Your task to perform on an android device: turn off location history Image 0: 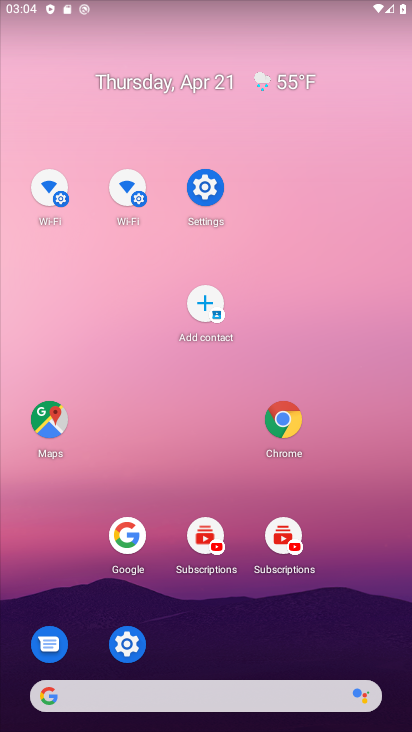
Step 0: drag from (229, 637) to (103, 24)
Your task to perform on an android device: turn off location history Image 1: 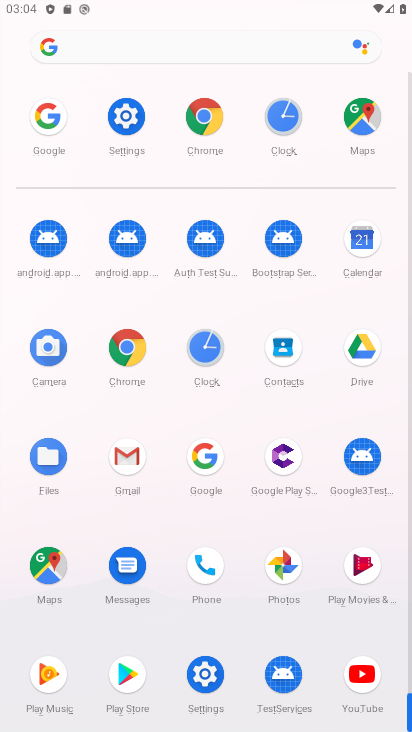
Step 1: click (370, 115)
Your task to perform on an android device: turn off location history Image 2: 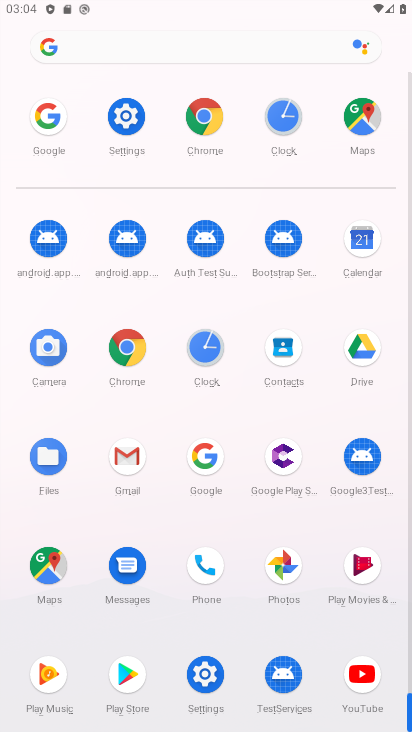
Step 2: click (370, 115)
Your task to perform on an android device: turn off location history Image 3: 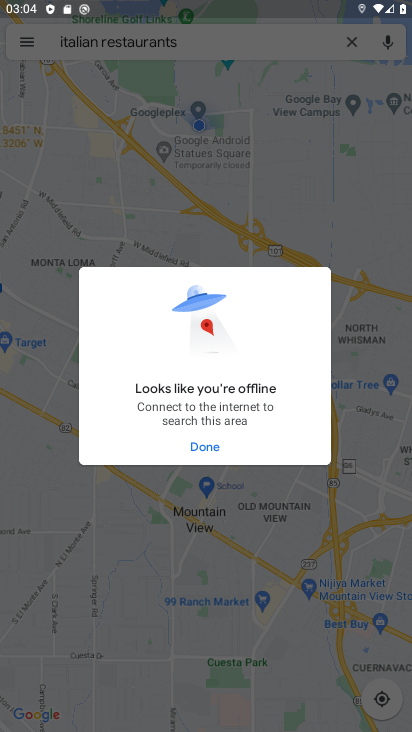
Step 3: task complete